Your task to perform on an android device: find which apps use the phone's location Image 0: 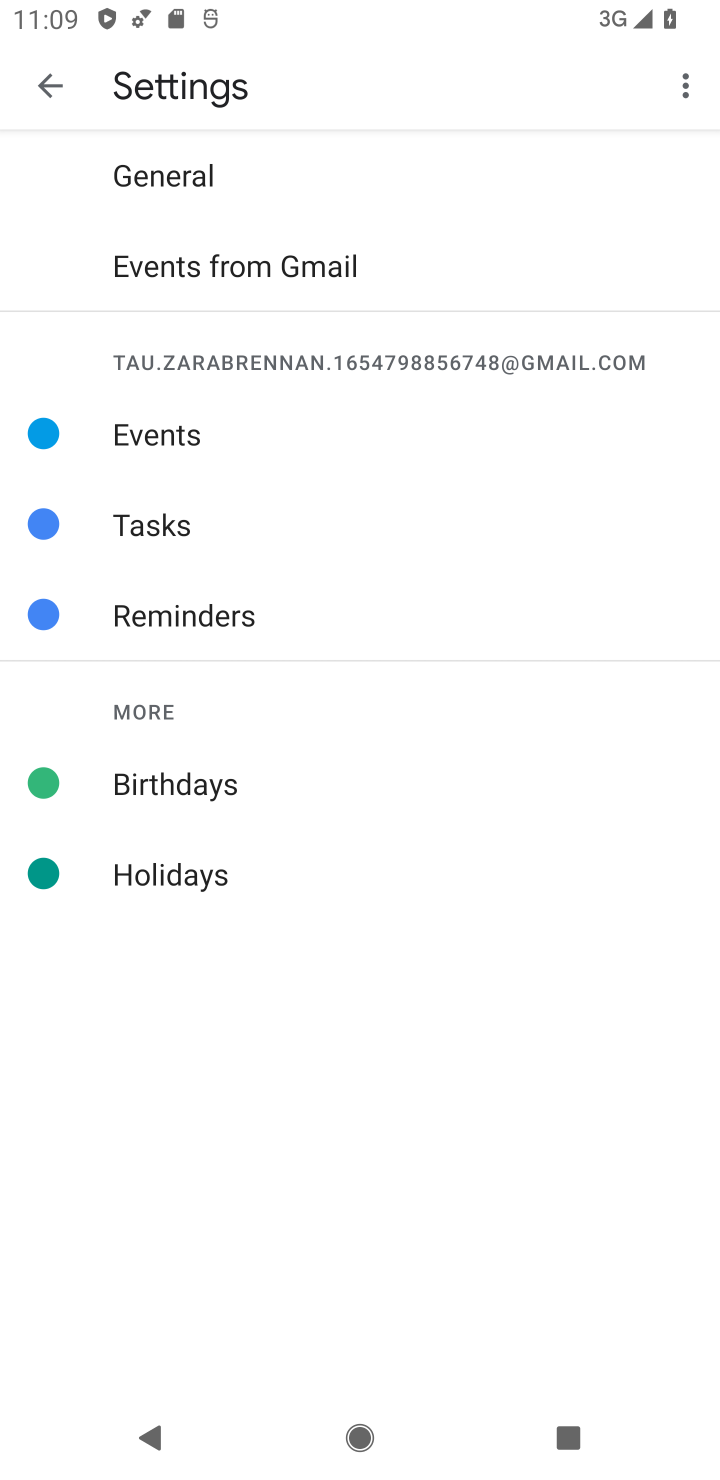
Step 0: press home button
Your task to perform on an android device: find which apps use the phone's location Image 1: 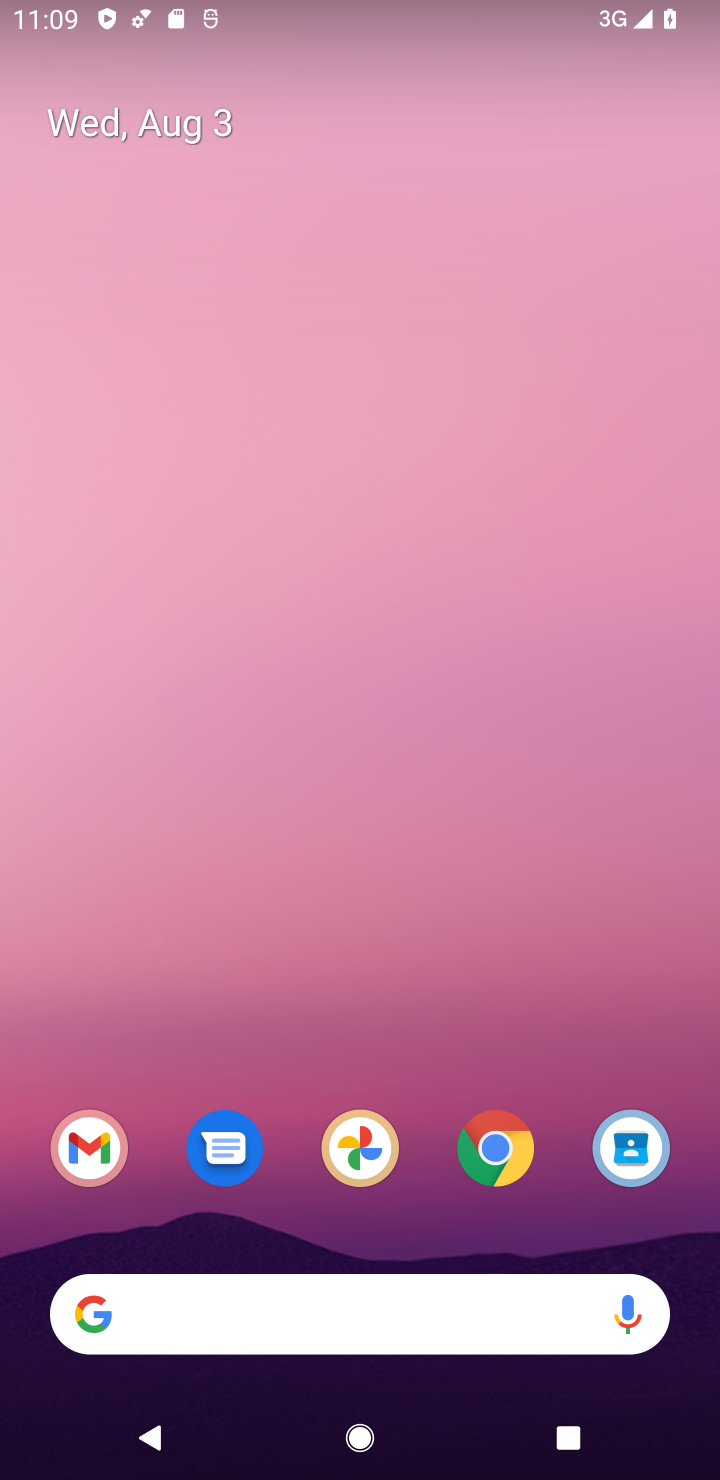
Step 1: task complete